Your task to perform on an android device: turn on bluetooth scan Image 0: 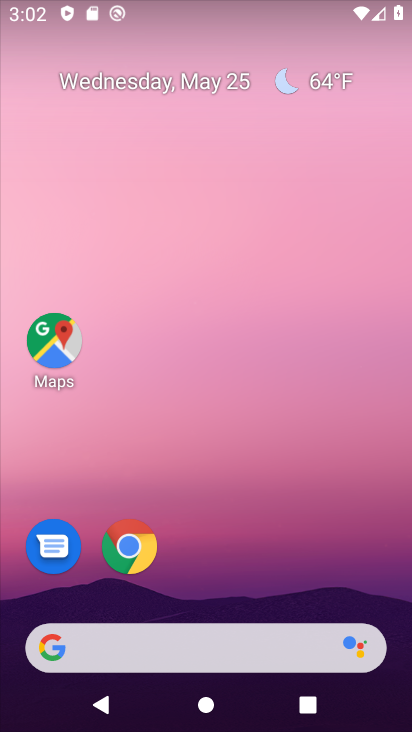
Step 0: drag from (210, 580) to (205, 83)
Your task to perform on an android device: turn on bluetooth scan Image 1: 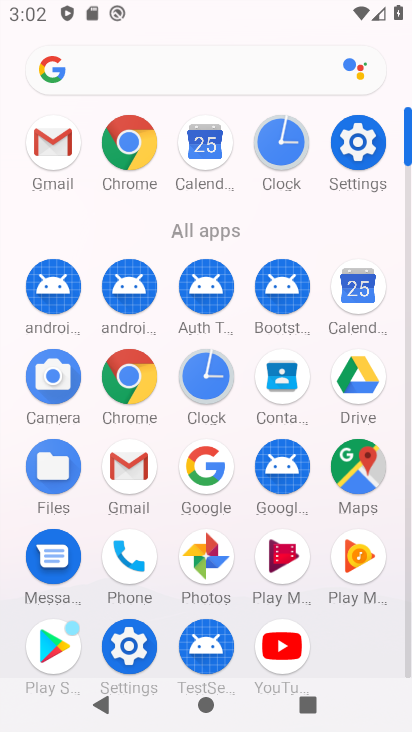
Step 1: click (363, 148)
Your task to perform on an android device: turn on bluetooth scan Image 2: 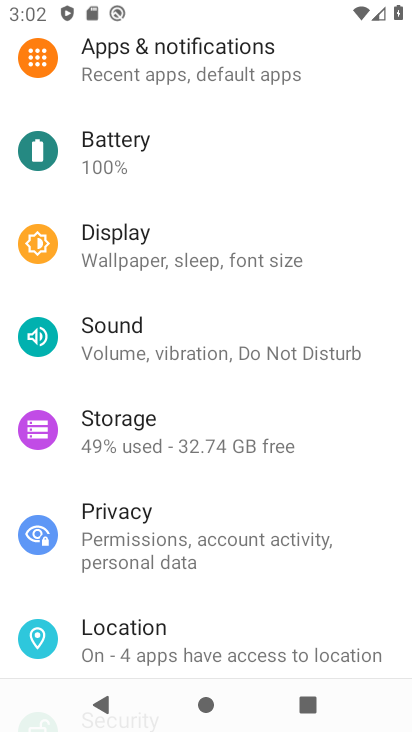
Step 2: click (124, 644)
Your task to perform on an android device: turn on bluetooth scan Image 3: 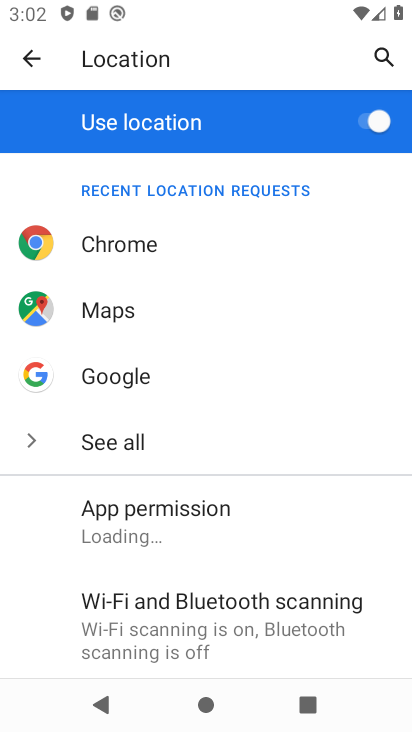
Step 3: click (140, 639)
Your task to perform on an android device: turn on bluetooth scan Image 4: 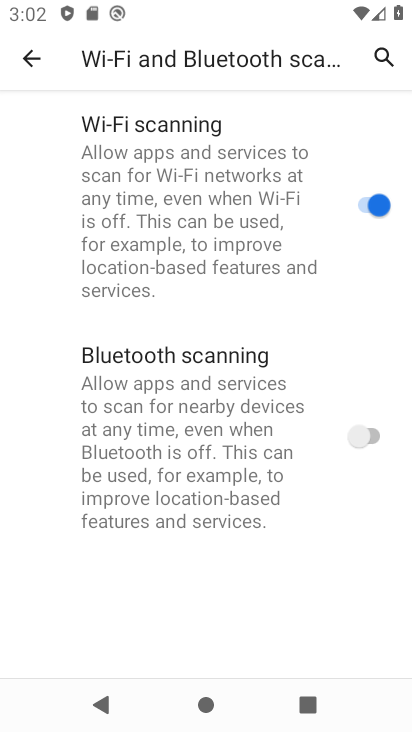
Step 4: click (361, 429)
Your task to perform on an android device: turn on bluetooth scan Image 5: 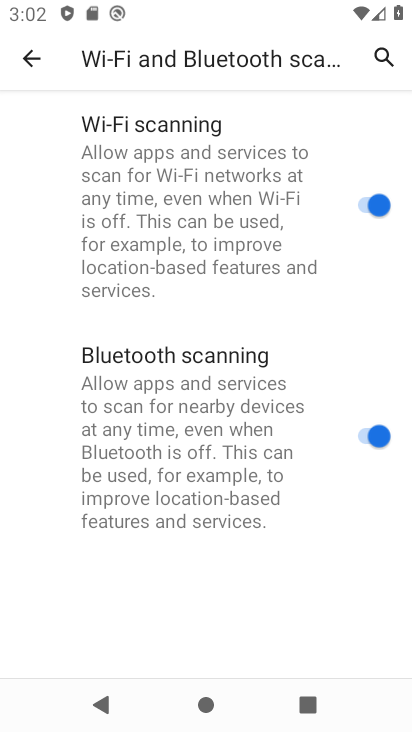
Step 5: task complete